Your task to perform on an android device: open device folders in google photos Image 0: 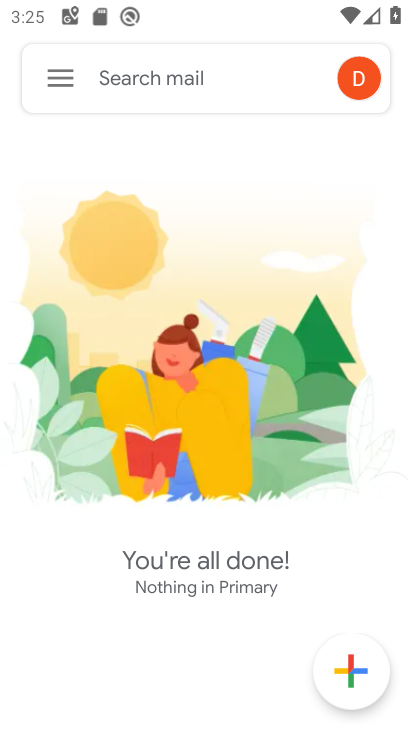
Step 0: drag from (204, 525) to (228, 391)
Your task to perform on an android device: open device folders in google photos Image 1: 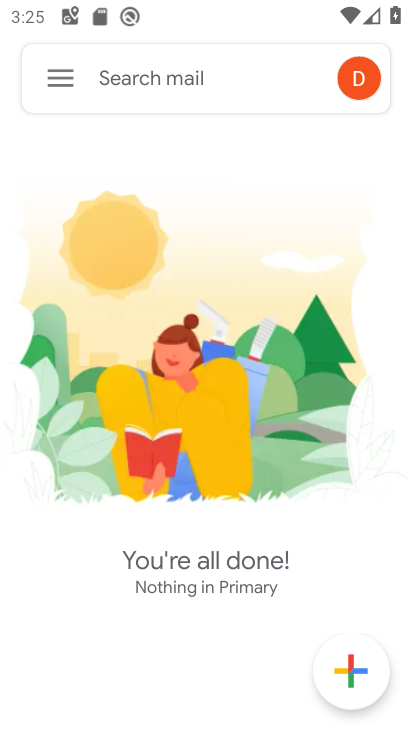
Step 1: press home button
Your task to perform on an android device: open device folders in google photos Image 2: 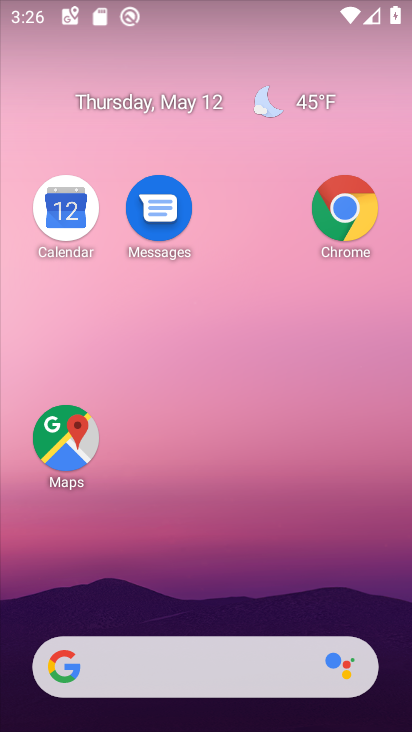
Step 2: drag from (206, 563) to (221, 445)
Your task to perform on an android device: open device folders in google photos Image 3: 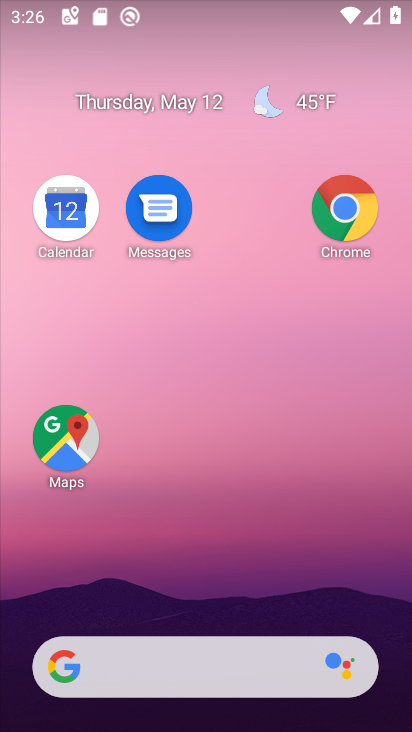
Step 3: drag from (248, 560) to (268, 161)
Your task to perform on an android device: open device folders in google photos Image 4: 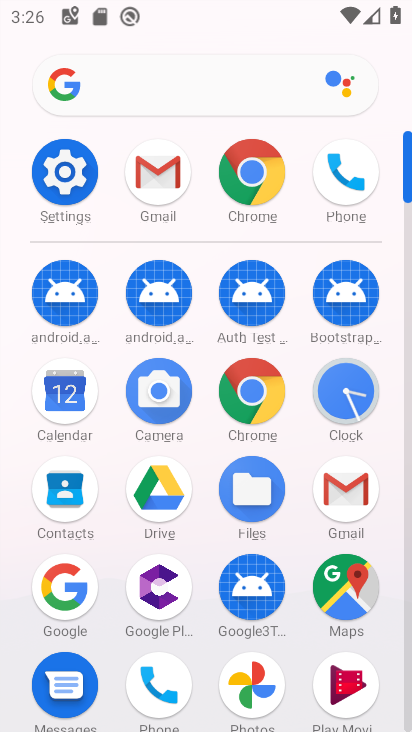
Step 4: click (249, 674)
Your task to perform on an android device: open device folders in google photos Image 5: 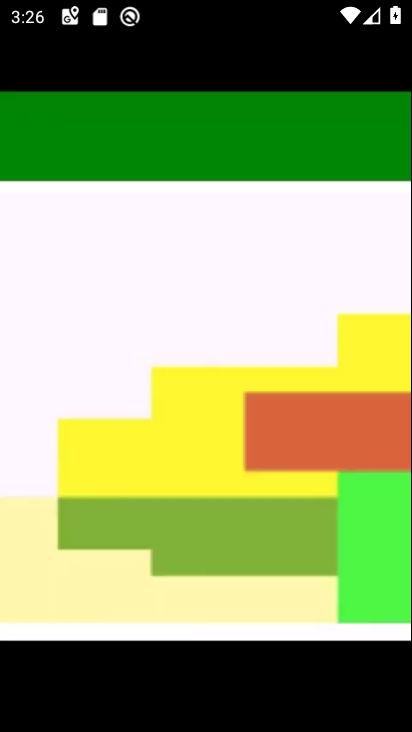
Step 5: drag from (333, 498) to (3, 523)
Your task to perform on an android device: open device folders in google photos Image 6: 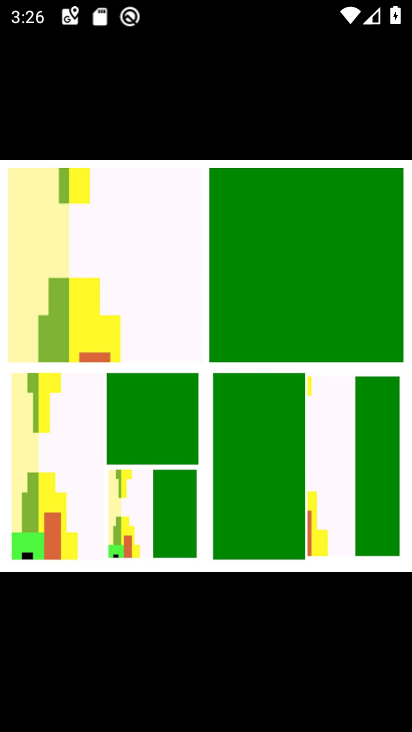
Step 6: press back button
Your task to perform on an android device: open device folders in google photos Image 7: 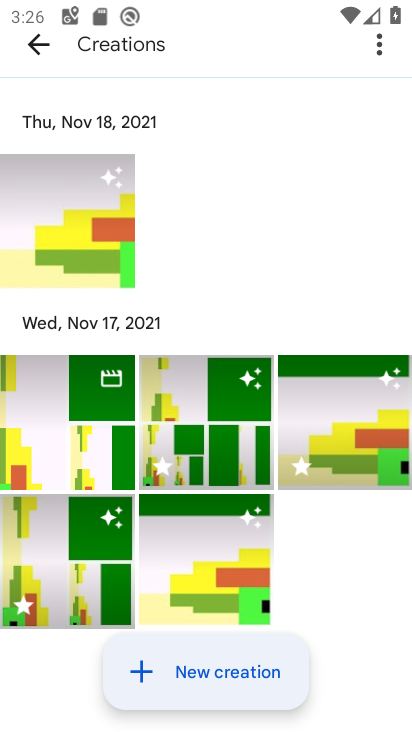
Step 7: click (37, 54)
Your task to perform on an android device: open device folders in google photos Image 8: 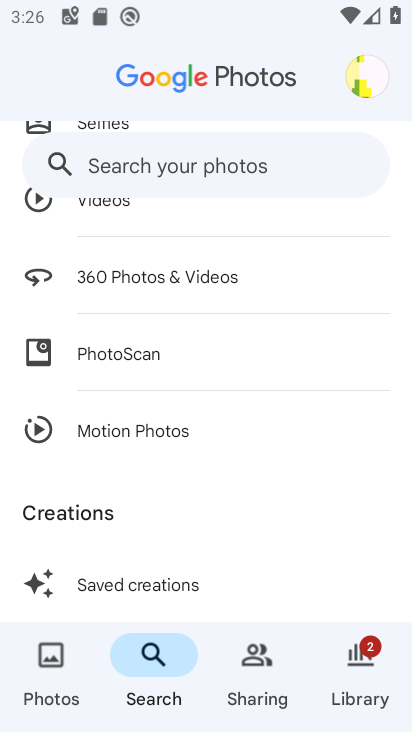
Step 8: click (357, 639)
Your task to perform on an android device: open device folders in google photos Image 9: 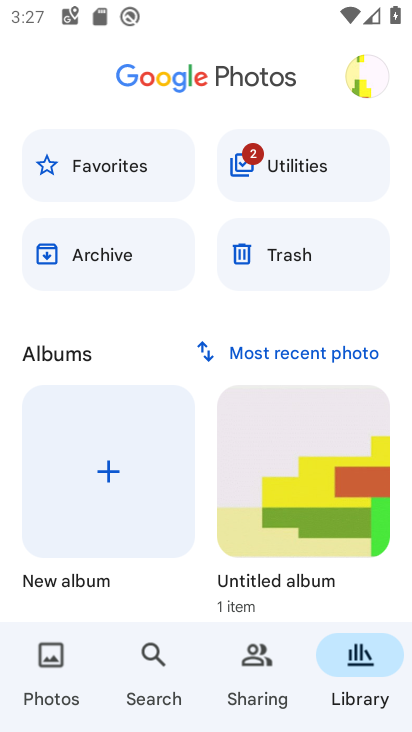
Step 9: drag from (161, 553) to (216, 255)
Your task to perform on an android device: open device folders in google photos Image 10: 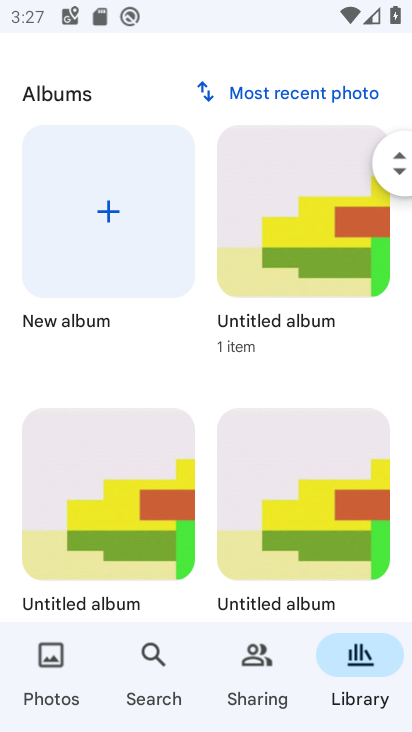
Step 10: click (230, 191)
Your task to perform on an android device: open device folders in google photos Image 11: 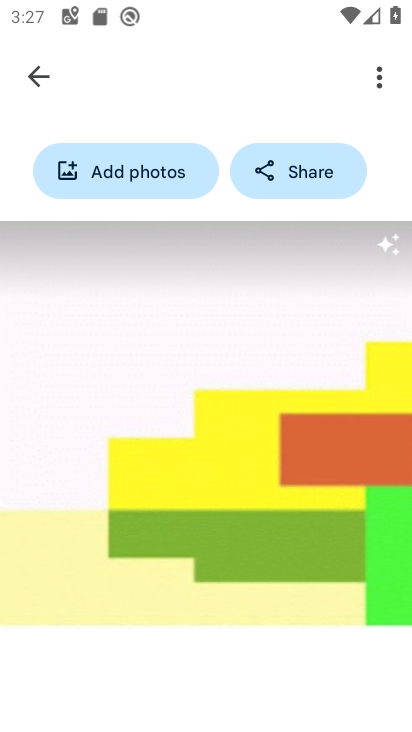
Step 11: task complete